Your task to perform on an android device: check google app version Image 0: 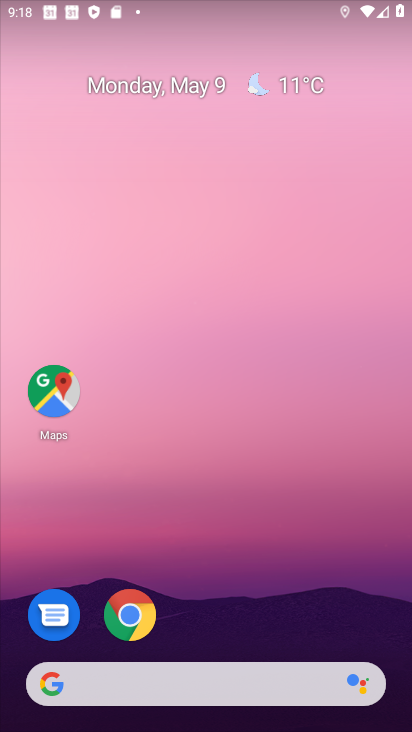
Step 0: drag from (261, 587) to (251, 37)
Your task to perform on an android device: check google app version Image 1: 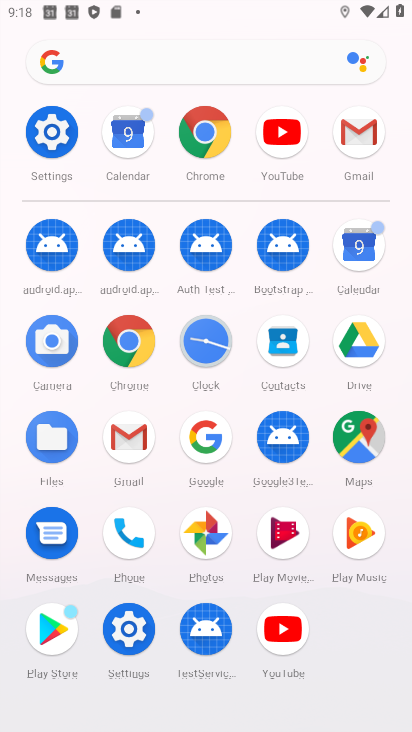
Step 1: drag from (3, 526) to (8, 160)
Your task to perform on an android device: check google app version Image 2: 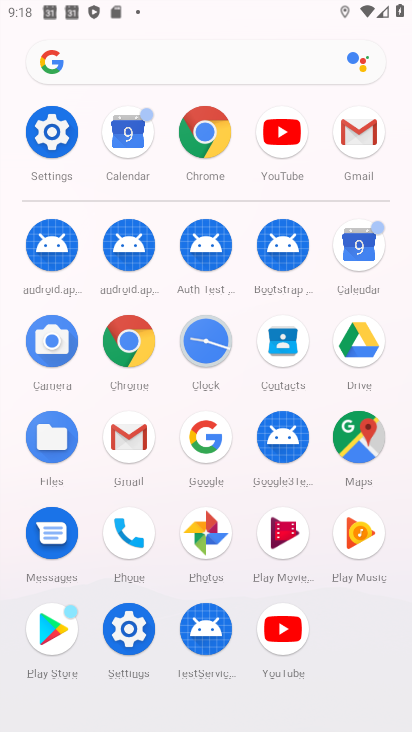
Step 2: drag from (9, 180) to (6, 499)
Your task to perform on an android device: check google app version Image 3: 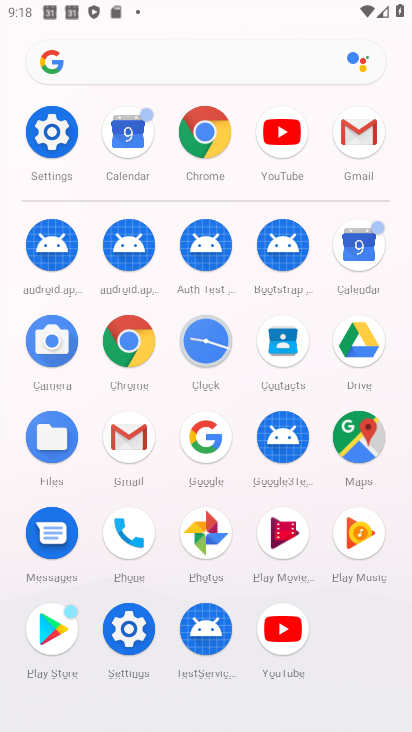
Step 3: click (204, 437)
Your task to perform on an android device: check google app version Image 4: 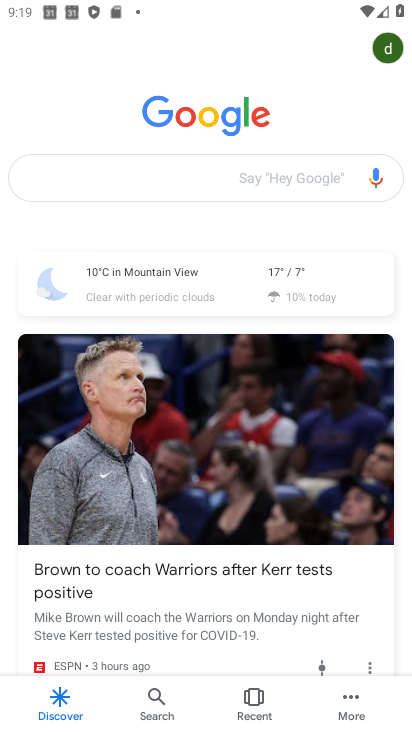
Step 4: click (347, 694)
Your task to perform on an android device: check google app version Image 5: 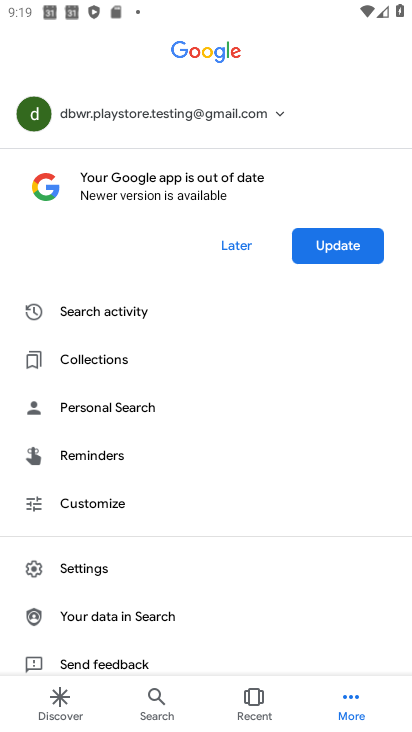
Step 5: click (78, 571)
Your task to perform on an android device: check google app version Image 6: 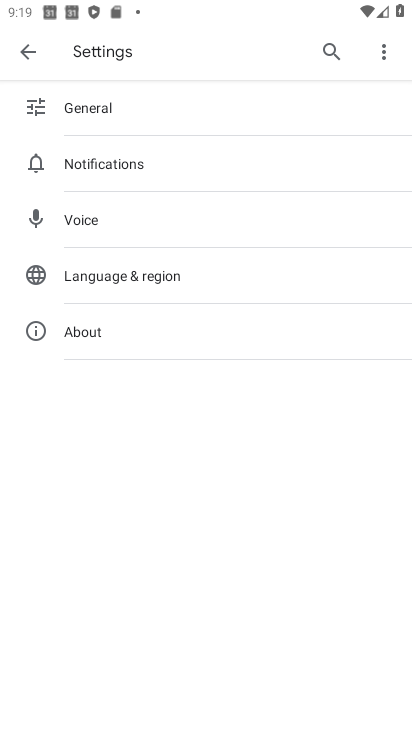
Step 6: click (143, 342)
Your task to perform on an android device: check google app version Image 7: 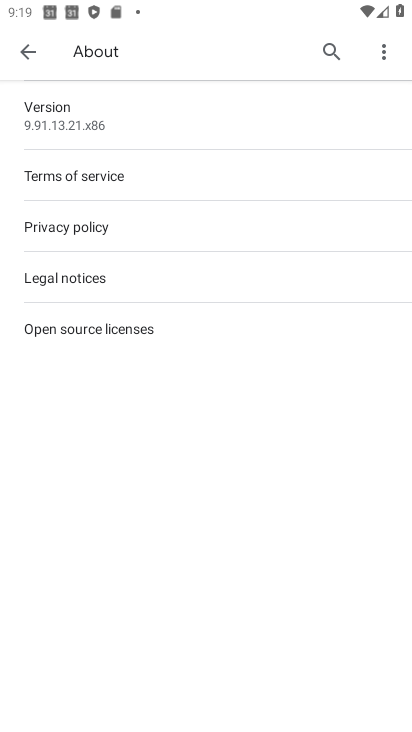
Step 7: task complete